Your task to perform on an android device: Open settings Image 0: 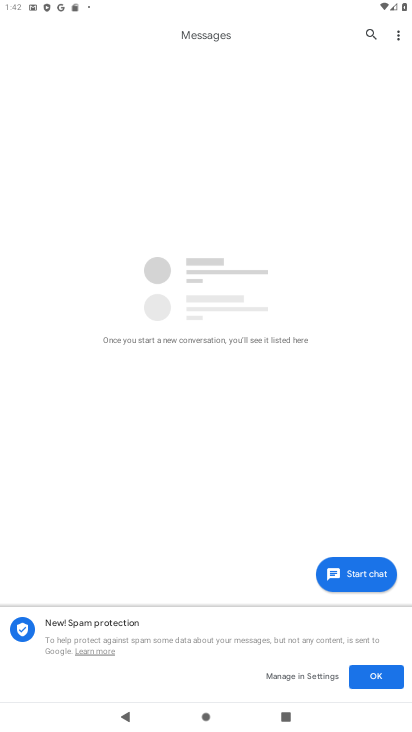
Step 0: press home button
Your task to perform on an android device: Open settings Image 1: 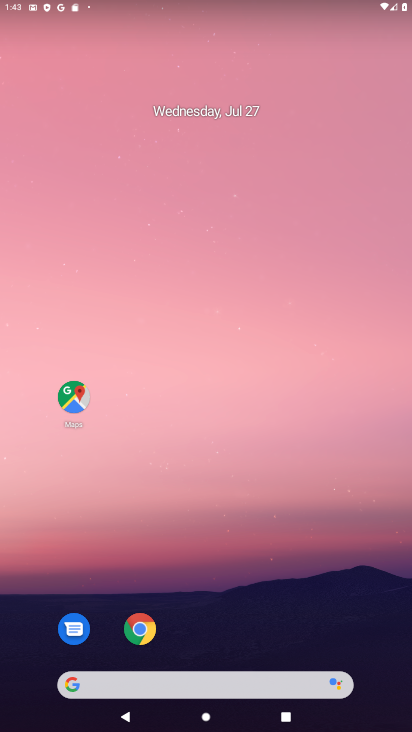
Step 1: drag from (323, 635) to (53, 70)
Your task to perform on an android device: Open settings Image 2: 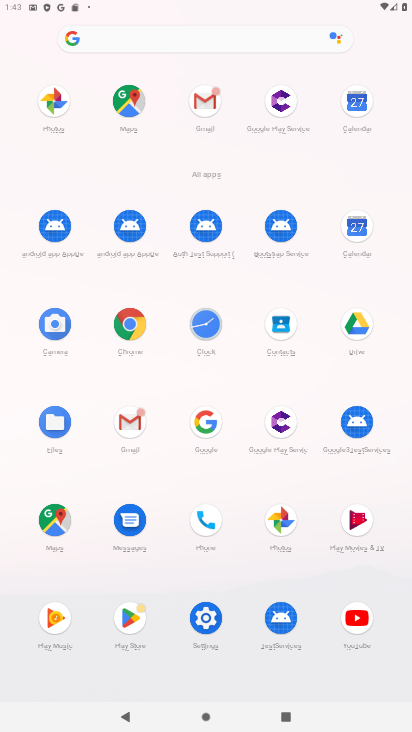
Step 2: click (196, 609)
Your task to perform on an android device: Open settings Image 3: 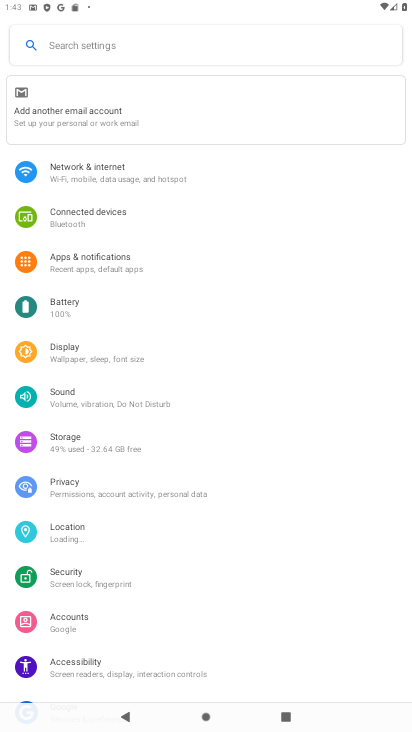
Step 3: task complete